Your task to perform on an android device: Add amazon basics triple a to the cart on bestbuy Image 0: 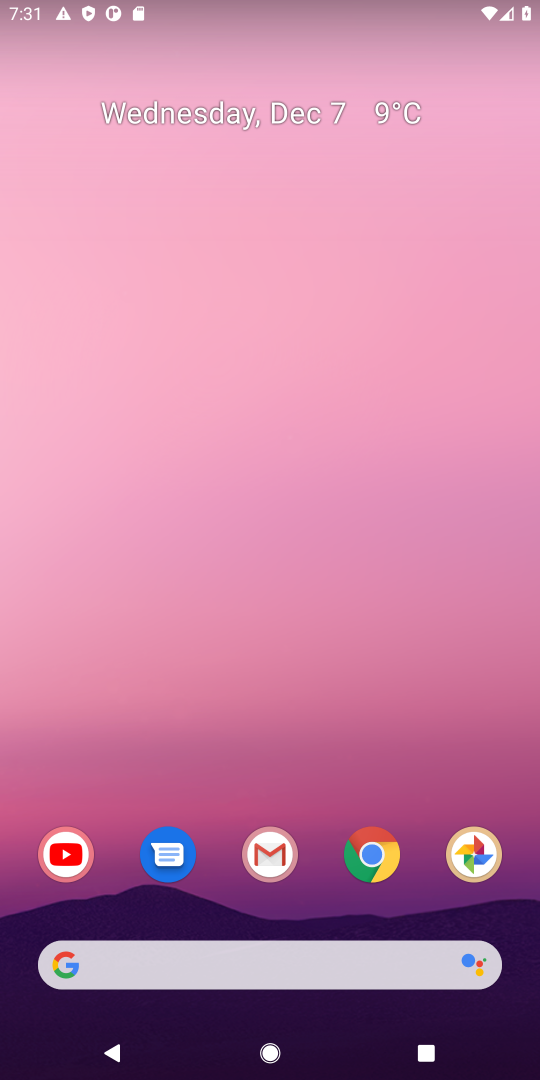
Step 0: click (291, 983)
Your task to perform on an android device: Add amazon basics triple a to the cart on bestbuy Image 1: 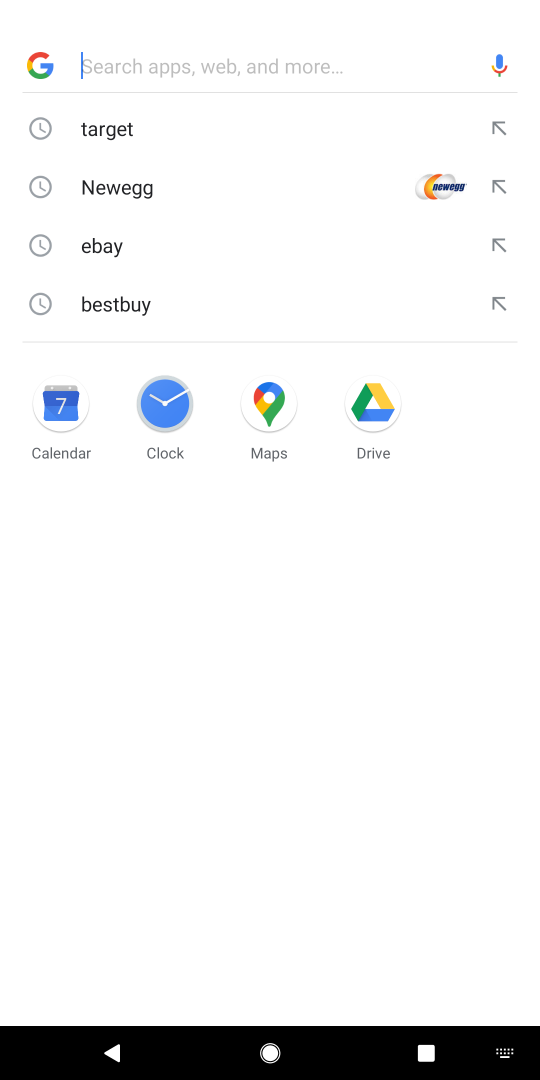
Step 1: type "bestbuy"
Your task to perform on an android device: Add amazon basics triple a to the cart on bestbuy Image 2: 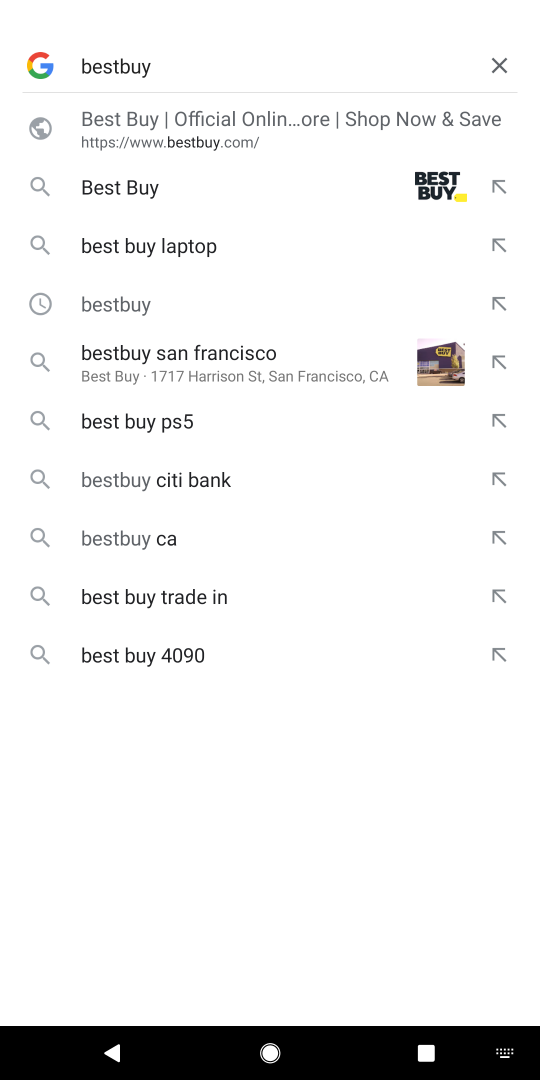
Step 2: click (141, 192)
Your task to perform on an android device: Add amazon basics triple a to the cart on bestbuy Image 3: 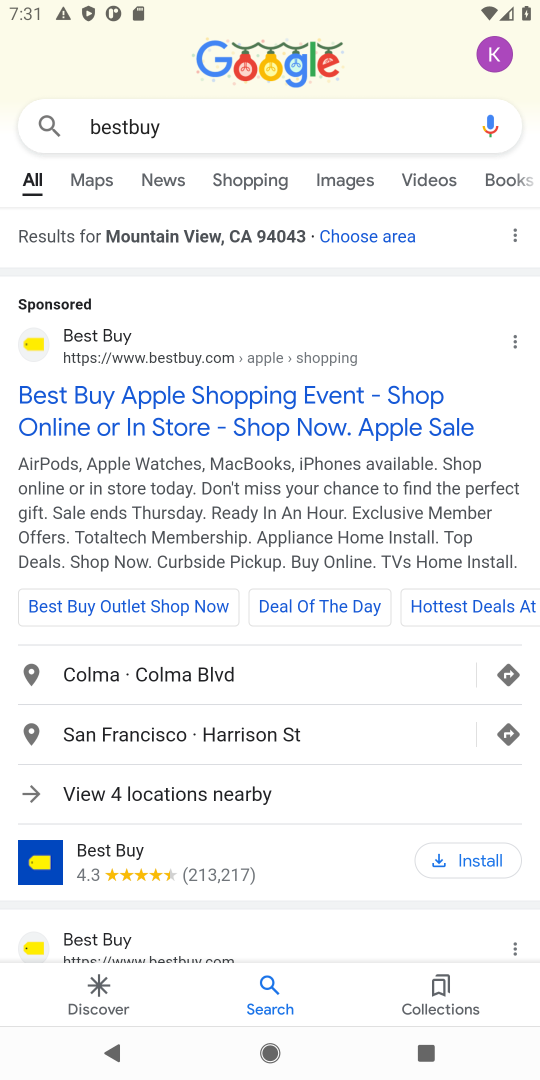
Step 3: click (359, 407)
Your task to perform on an android device: Add amazon basics triple a to the cart on bestbuy Image 4: 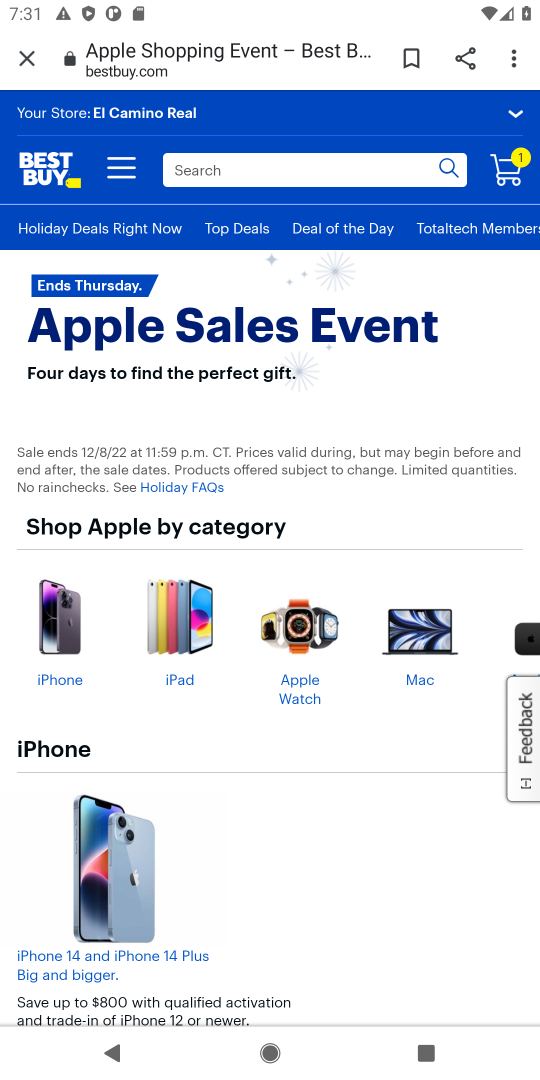
Step 4: click (286, 178)
Your task to perform on an android device: Add amazon basics triple a to the cart on bestbuy Image 5: 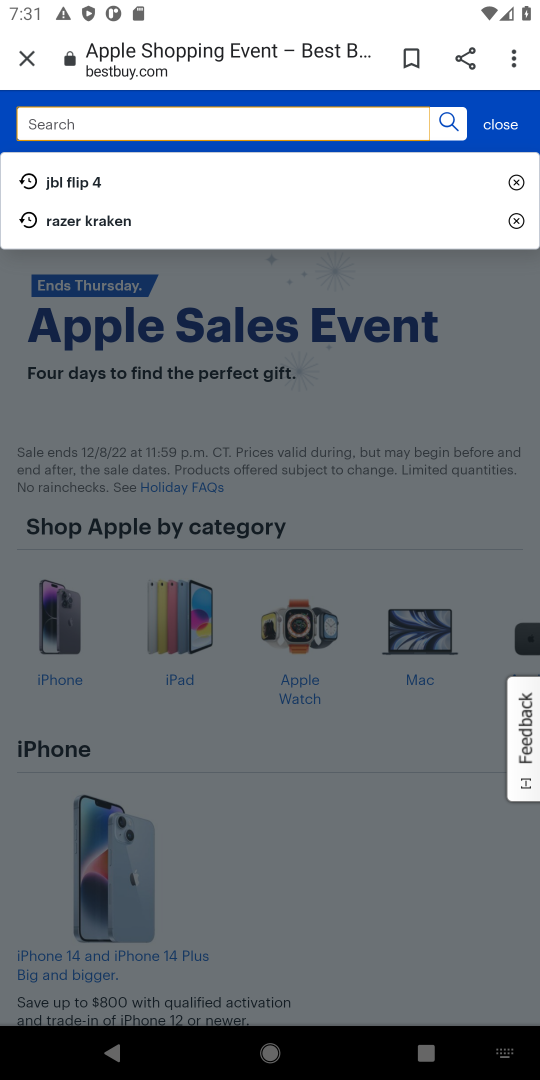
Step 5: type "amazon"
Your task to perform on an android device: Add amazon basics triple a to the cart on bestbuy Image 6: 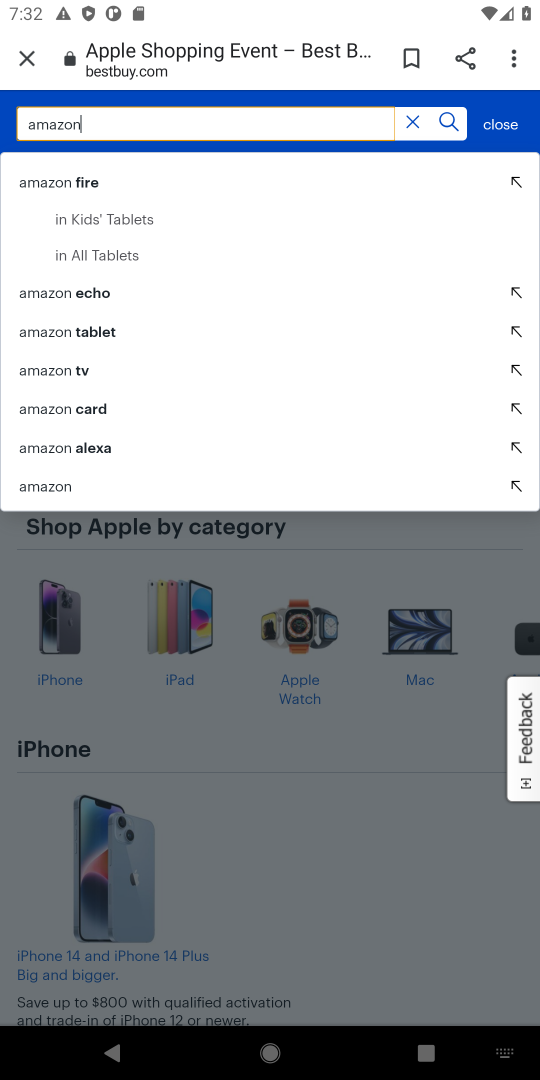
Step 6: type " basic triple"
Your task to perform on an android device: Add amazon basics triple a to the cart on bestbuy Image 7: 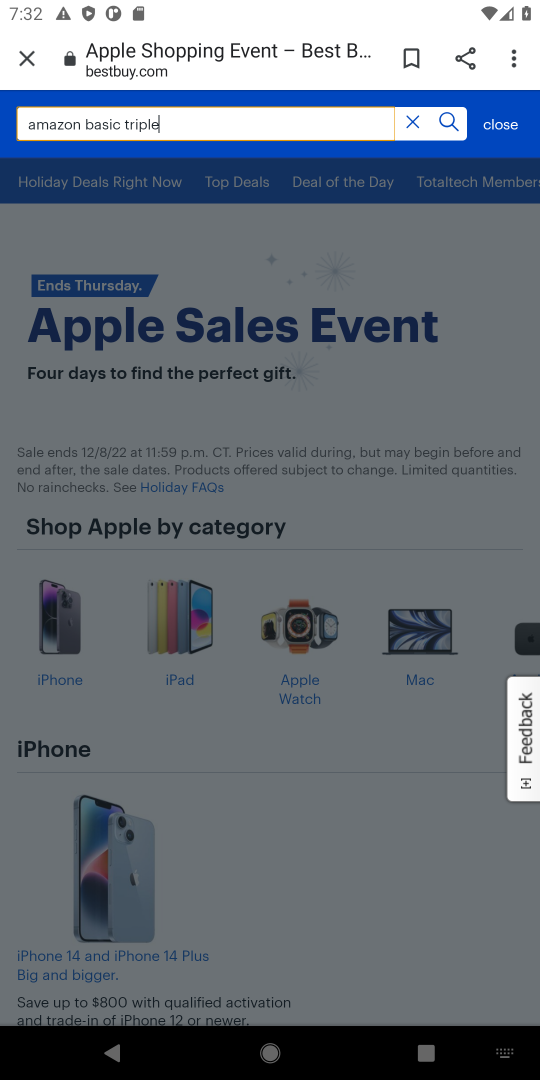
Step 7: click (462, 131)
Your task to perform on an android device: Add amazon basics triple a to the cart on bestbuy Image 8: 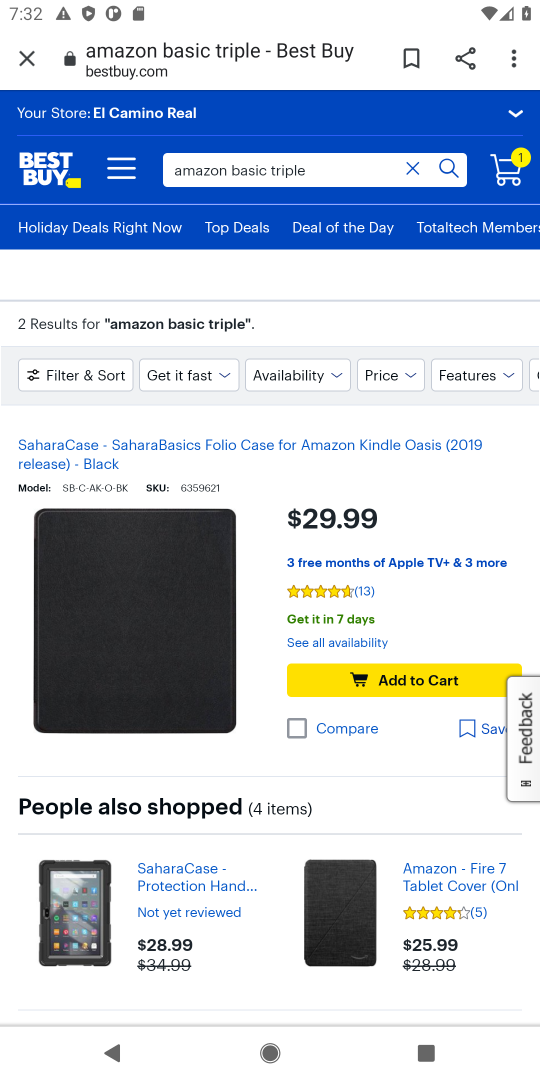
Step 8: click (422, 688)
Your task to perform on an android device: Add amazon basics triple a to the cart on bestbuy Image 9: 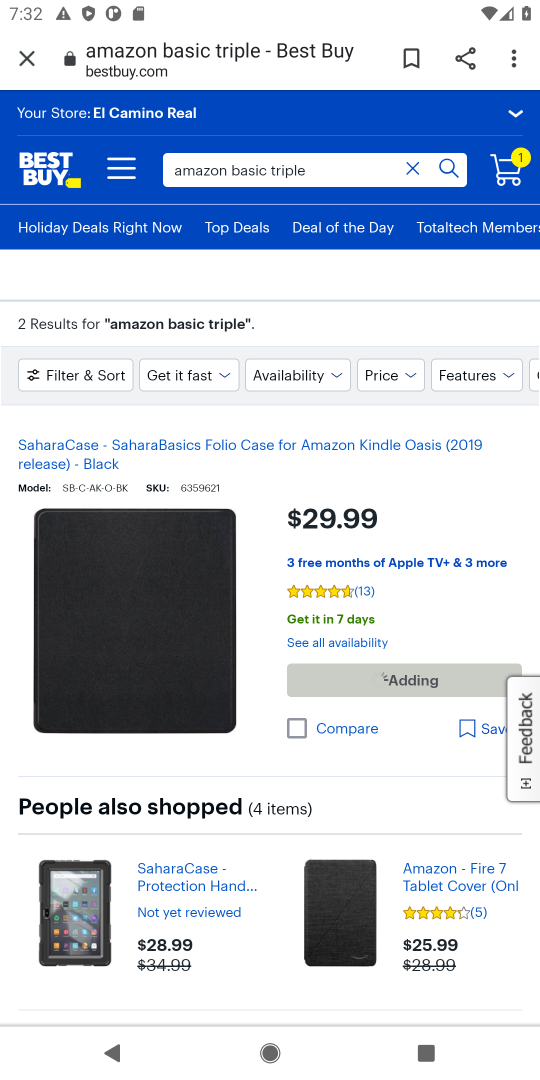
Step 9: task complete